Your task to perform on an android device: Open Google Chrome and click the shortcut for Amazon.com Image 0: 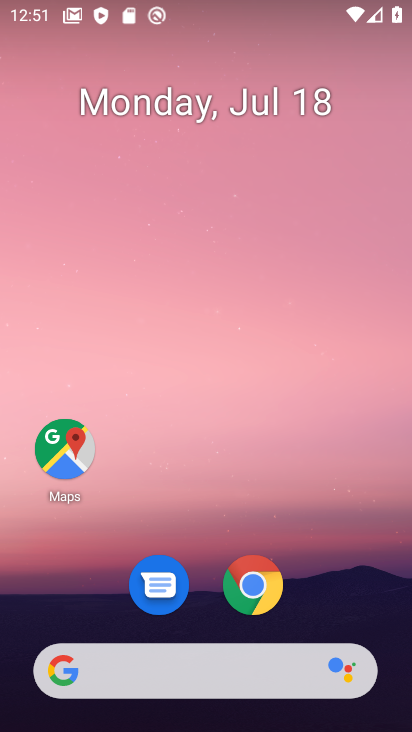
Step 0: click (251, 597)
Your task to perform on an android device: Open Google Chrome and click the shortcut for Amazon.com Image 1: 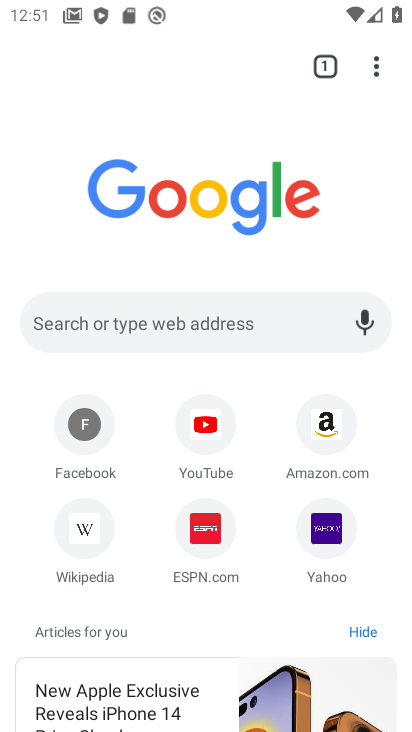
Step 1: click (322, 423)
Your task to perform on an android device: Open Google Chrome and click the shortcut for Amazon.com Image 2: 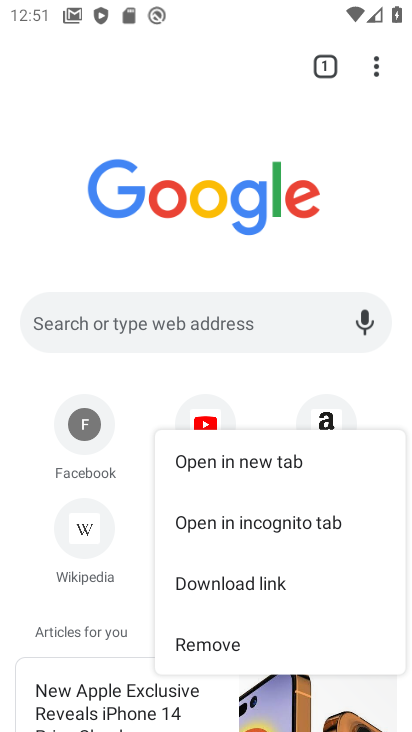
Step 2: click (328, 415)
Your task to perform on an android device: Open Google Chrome and click the shortcut for Amazon.com Image 3: 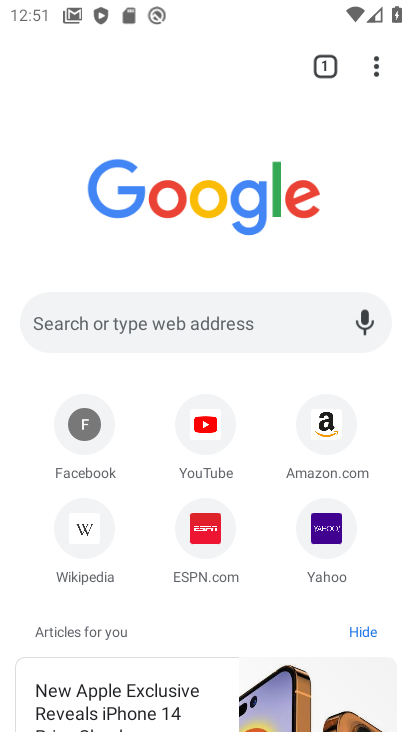
Step 3: click (325, 423)
Your task to perform on an android device: Open Google Chrome and click the shortcut for Amazon.com Image 4: 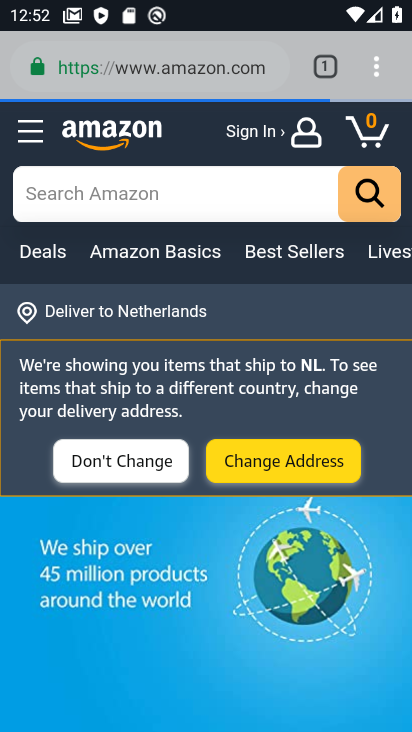
Step 4: task complete